Your task to perform on an android device: Open the Play Movies app and select the watchlist tab. Image 0: 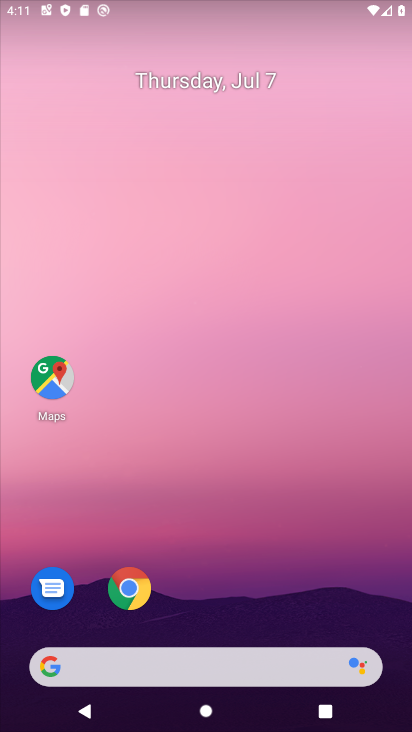
Step 0: press home button
Your task to perform on an android device: Open the Play Movies app and select the watchlist tab. Image 1: 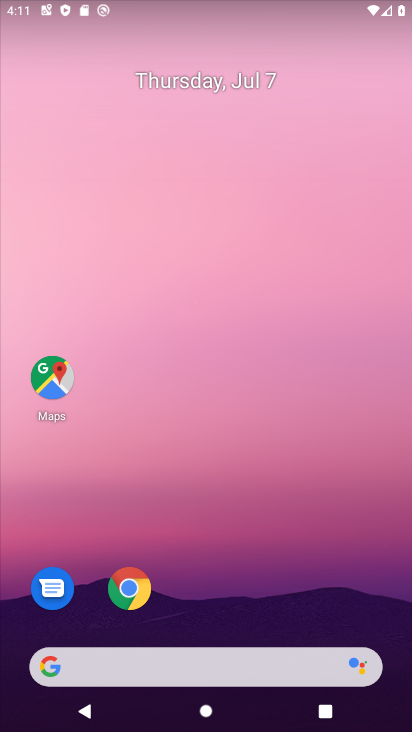
Step 1: drag from (273, 627) to (262, 128)
Your task to perform on an android device: Open the Play Movies app and select the watchlist tab. Image 2: 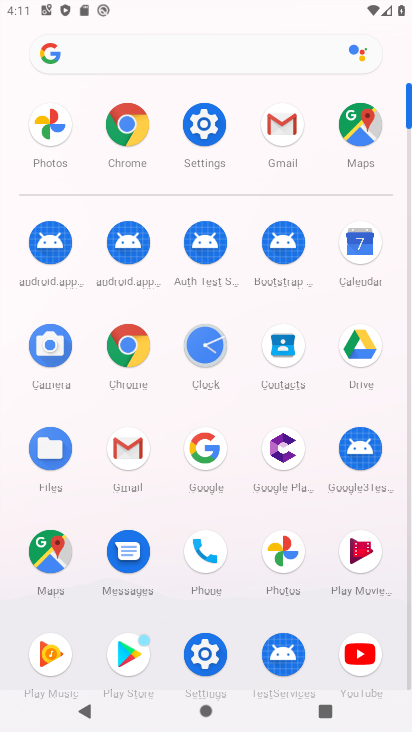
Step 2: click (359, 544)
Your task to perform on an android device: Open the Play Movies app and select the watchlist tab. Image 3: 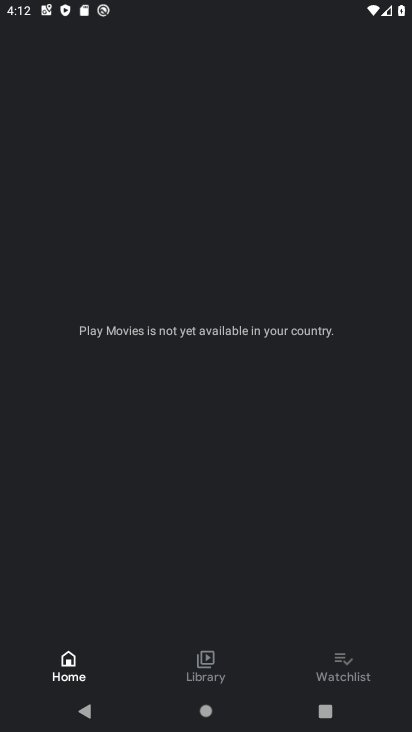
Step 3: click (329, 663)
Your task to perform on an android device: Open the Play Movies app and select the watchlist tab. Image 4: 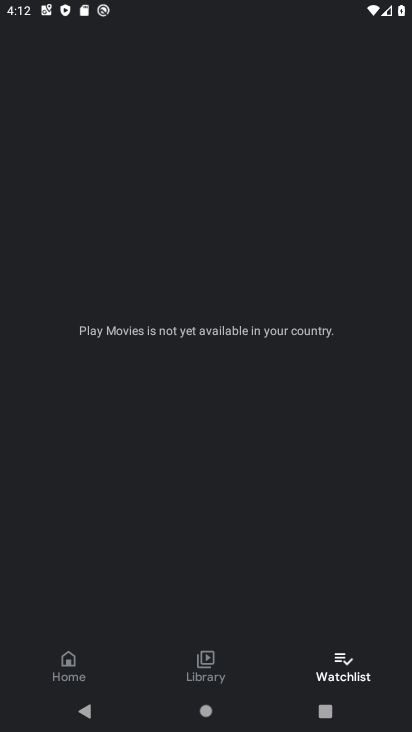
Step 4: task complete